Your task to perform on an android device: Open Youtube and go to the subscriptions tab Image 0: 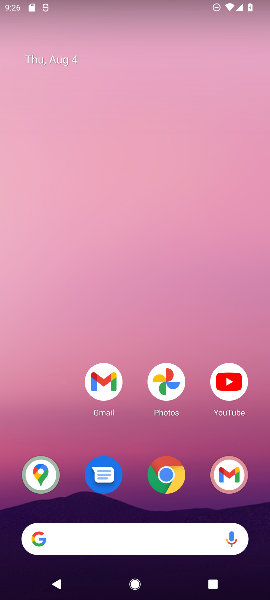
Step 0: drag from (135, 462) to (227, 95)
Your task to perform on an android device: Open Youtube and go to the subscriptions tab Image 1: 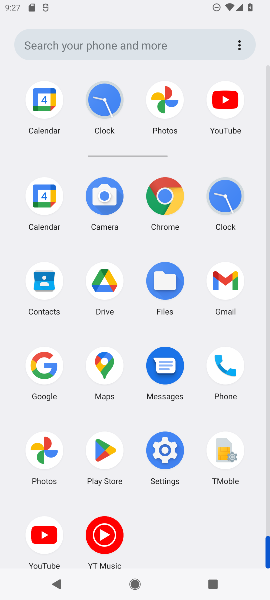
Step 1: click (39, 529)
Your task to perform on an android device: Open Youtube and go to the subscriptions tab Image 2: 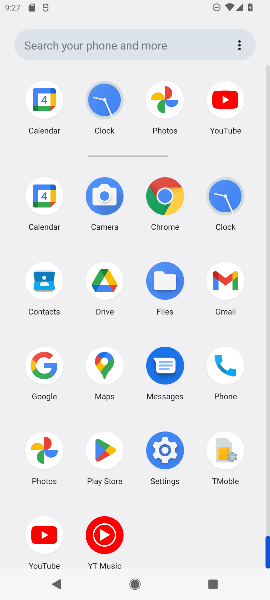
Step 2: click (39, 529)
Your task to perform on an android device: Open Youtube and go to the subscriptions tab Image 3: 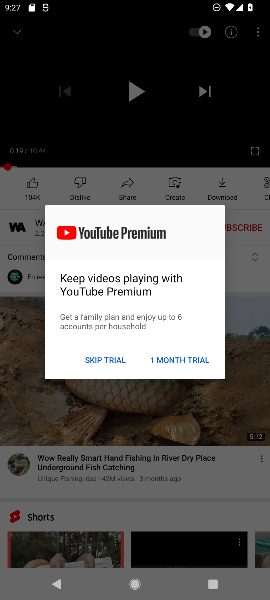
Step 3: press back button
Your task to perform on an android device: Open Youtube and go to the subscriptions tab Image 4: 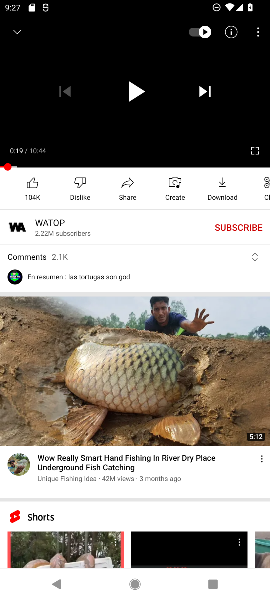
Step 4: press back button
Your task to perform on an android device: Open Youtube and go to the subscriptions tab Image 5: 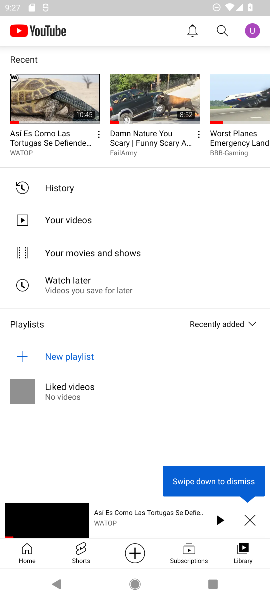
Step 5: click (186, 548)
Your task to perform on an android device: Open Youtube and go to the subscriptions tab Image 6: 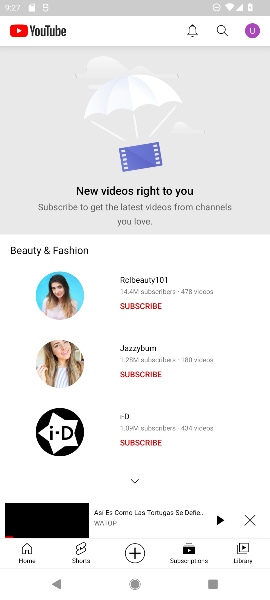
Step 6: task complete